Your task to perform on an android device: see creations saved in the google photos Image 0: 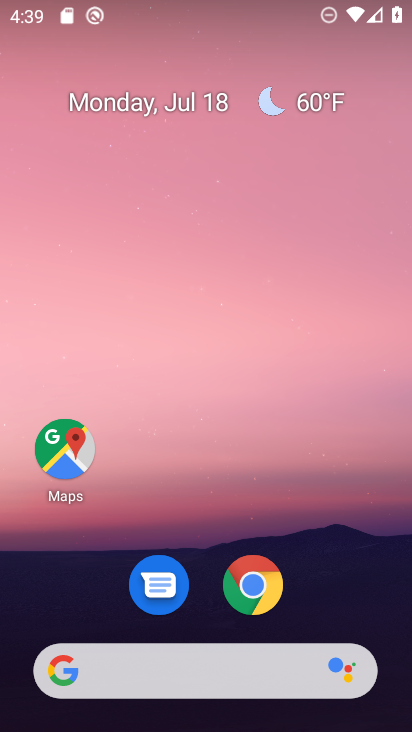
Step 0: drag from (353, 584) to (320, 40)
Your task to perform on an android device: see creations saved in the google photos Image 1: 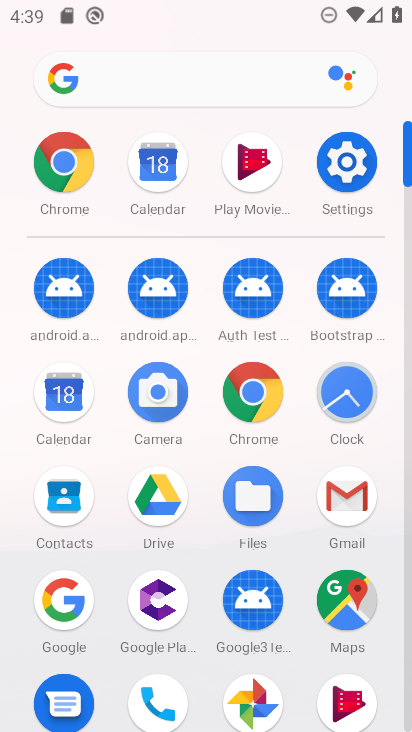
Step 1: click (255, 679)
Your task to perform on an android device: see creations saved in the google photos Image 2: 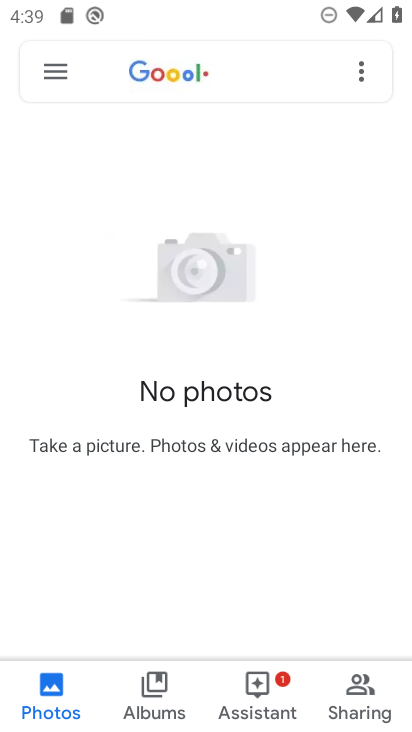
Step 2: click (220, 53)
Your task to perform on an android device: see creations saved in the google photos Image 3: 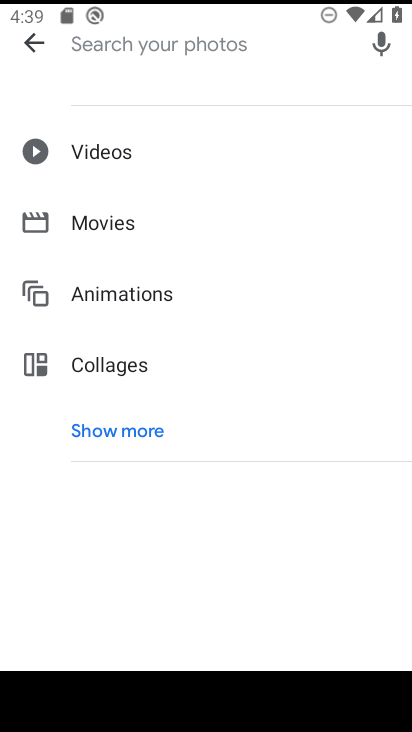
Step 3: click (110, 430)
Your task to perform on an android device: see creations saved in the google photos Image 4: 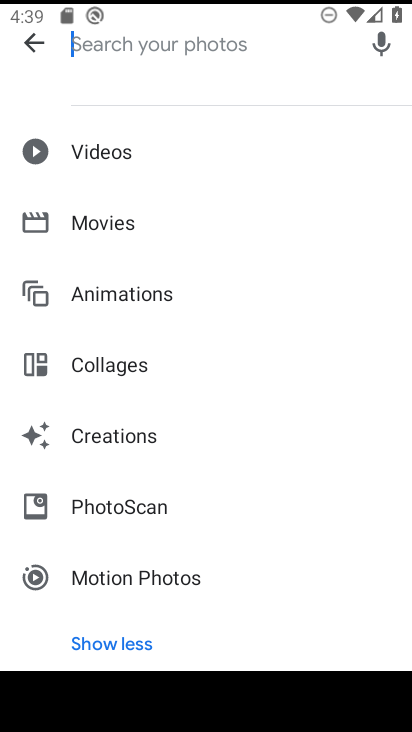
Step 4: click (110, 430)
Your task to perform on an android device: see creations saved in the google photos Image 5: 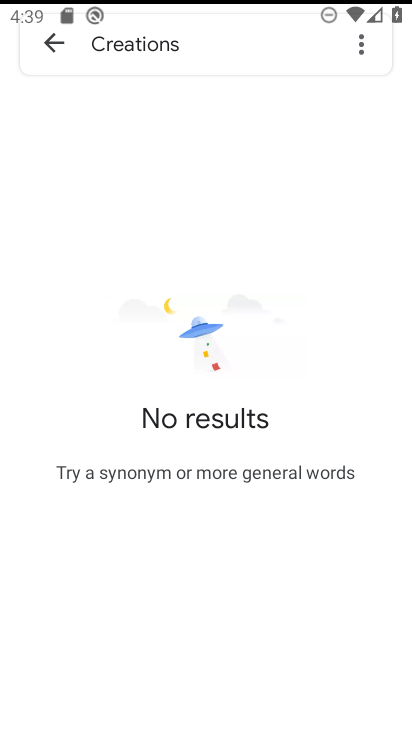
Step 5: task complete